Your task to perform on an android device: change the upload size in google photos Image 0: 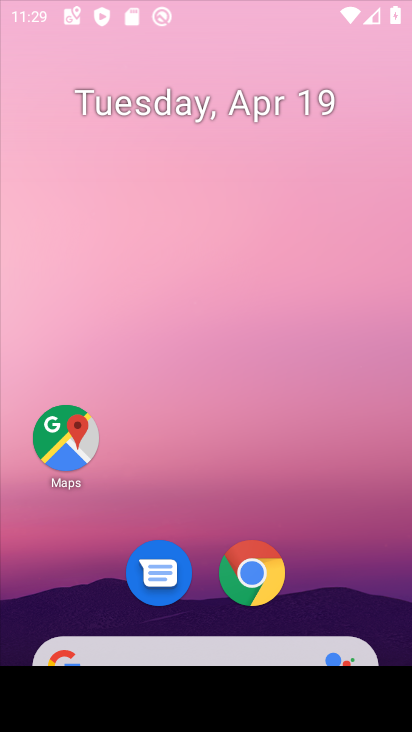
Step 0: click (51, 418)
Your task to perform on an android device: change the upload size in google photos Image 1: 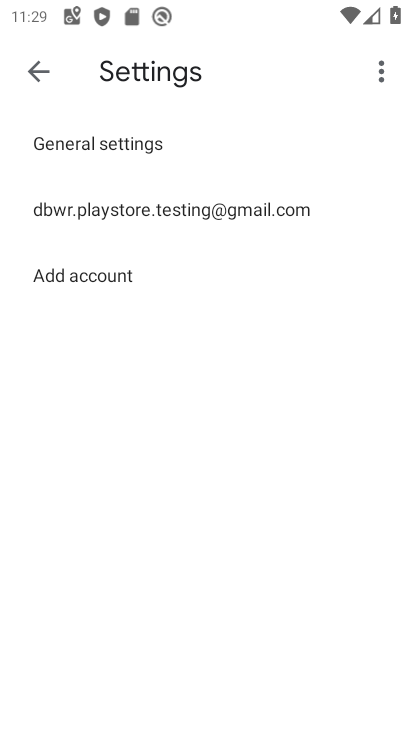
Step 1: press home button
Your task to perform on an android device: change the upload size in google photos Image 2: 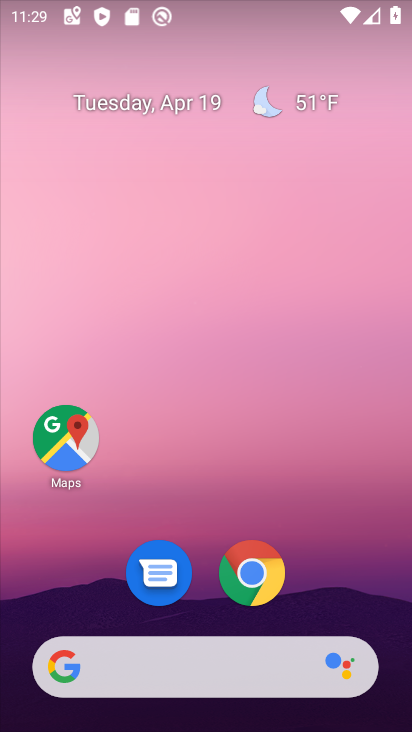
Step 2: drag from (210, 284) to (235, 145)
Your task to perform on an android device: change the upload size in google photos Image 3: 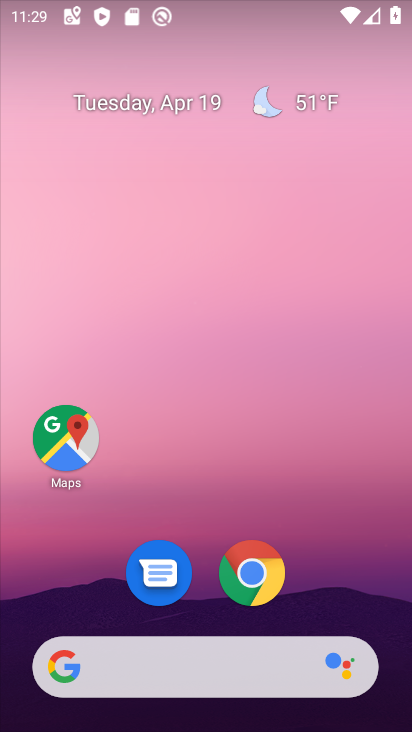
Step 3: drag from (352, 537) to (365, 116)
Your task to perform on an android device: change the upload size in google photos Image 4: 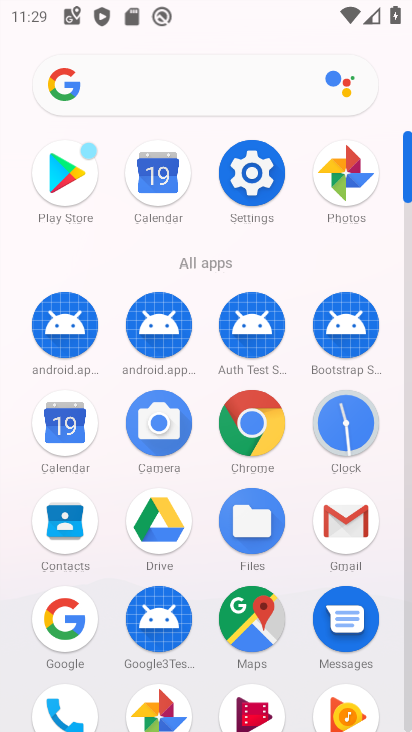
Step 4: click (355, 199)
Your task to perform on an android device: change the upload size in google photos Image 5: 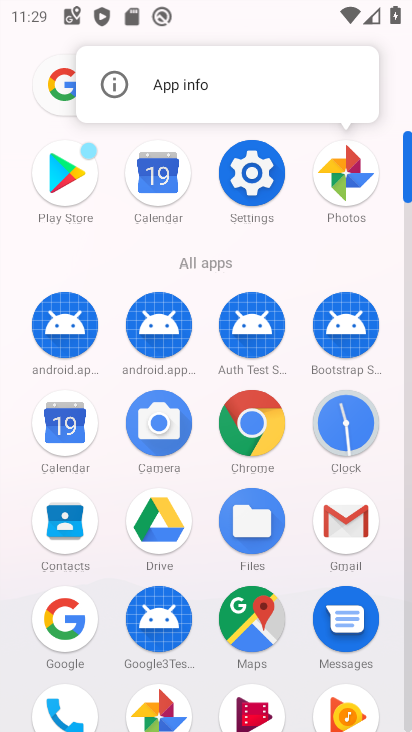
Step 5: click (359, 181)
Your task to perform on an android device: change the upload size in google photos Image 6: 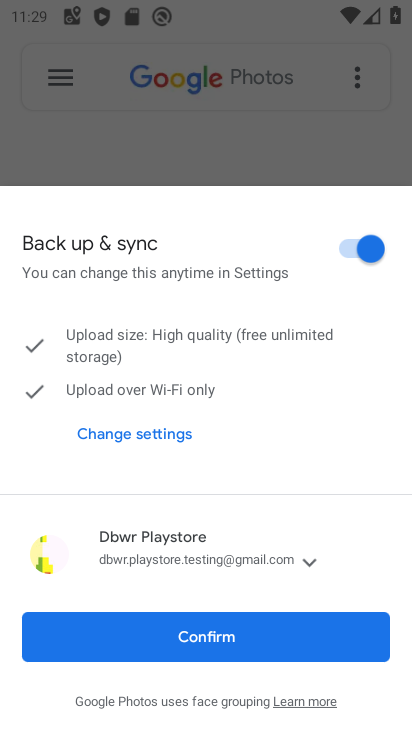
Step 6: click (173, 632)
Your task to perform on an android device: change the upload size in google photos Image 7: 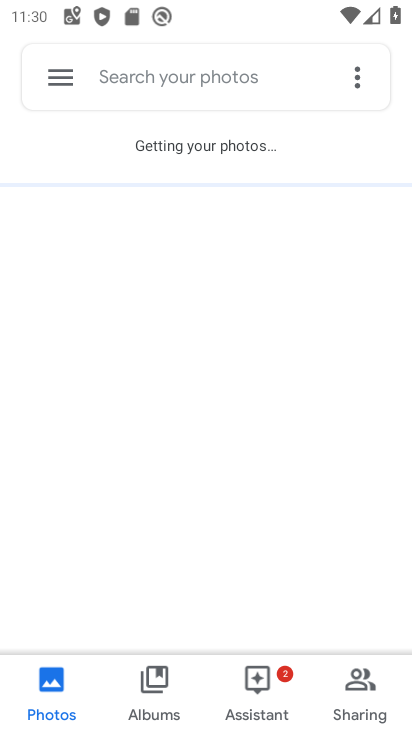
Step 7: click (64, 76)
Your task to perform on an android device: change the upload size in google photos Image 8: 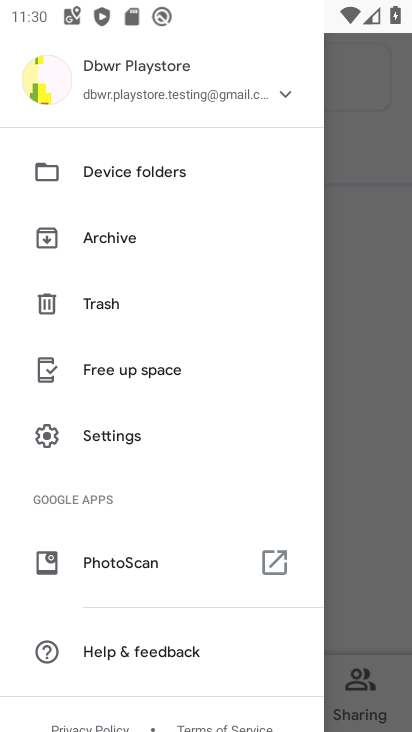
Step 8: click (126, 441)
Your task to perform on an android device: change the upload size in google photos Image 9: 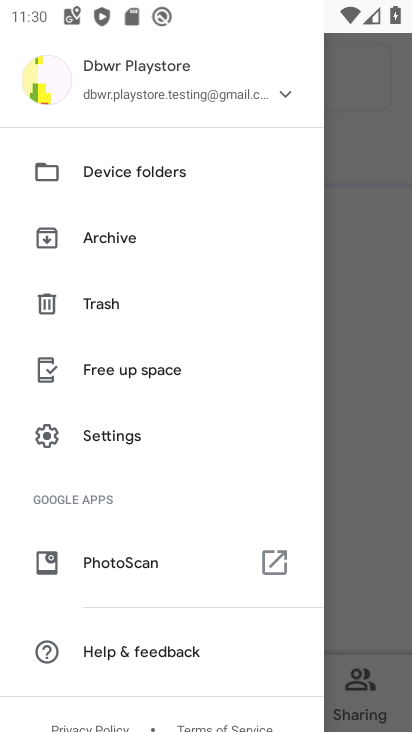
Step 9: click (125, 434)
Your task to perform on an android device: change the upload size in google photos Image 10: 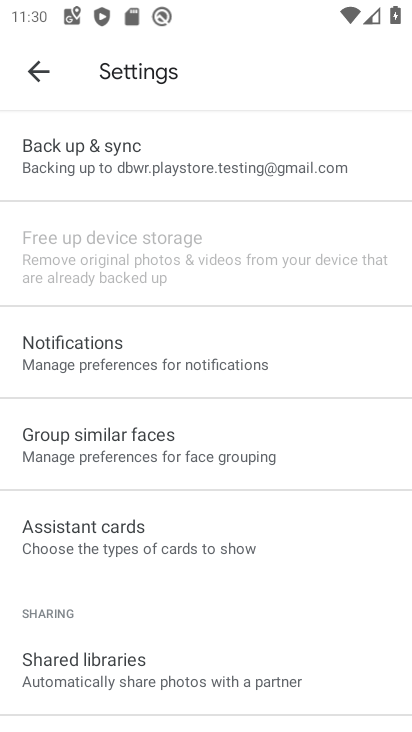
Step 10: drag from (202, 504) to (206, 300)
Your task to perform on an android device: change the upload size in google photos Image 11: 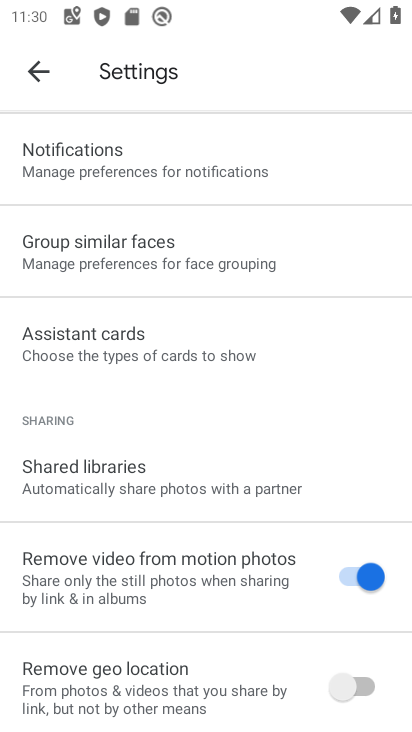
Step 11: drag from (195, 631) to (216, 300)
Your task to perform on an android device: change the upload size in google photos Image 12: 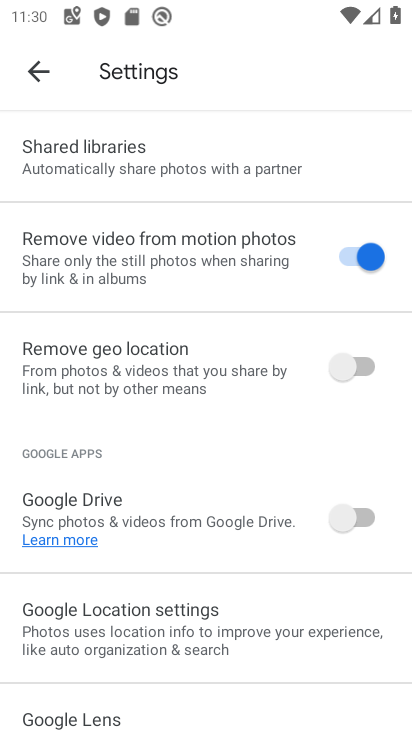
Step 12: drag from (204, 385) to (191, 654)
Your task to perform on an android device: change the upload size in google photos Image 13: 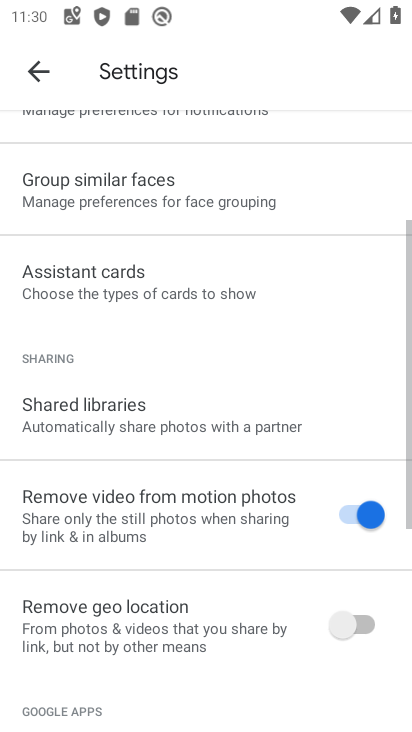
Step 13: drag from (156, 292) to (154, 660)
Your task to perform on an android device: change the upload size in google photos Image 14: 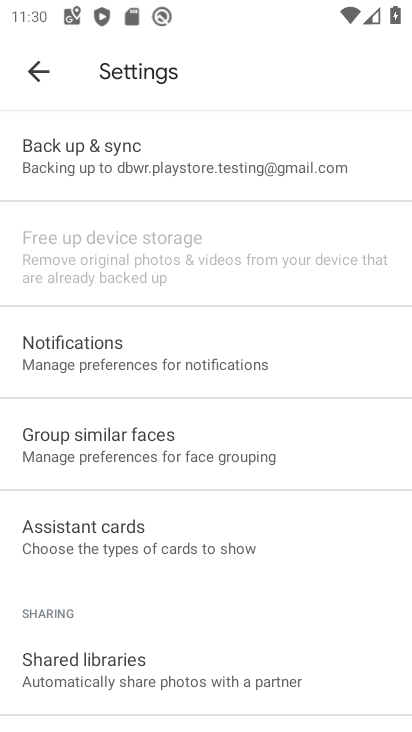
Step 14: click (145, 179)
Your task to perform on an android device: change the upload size in google photos Image 15: 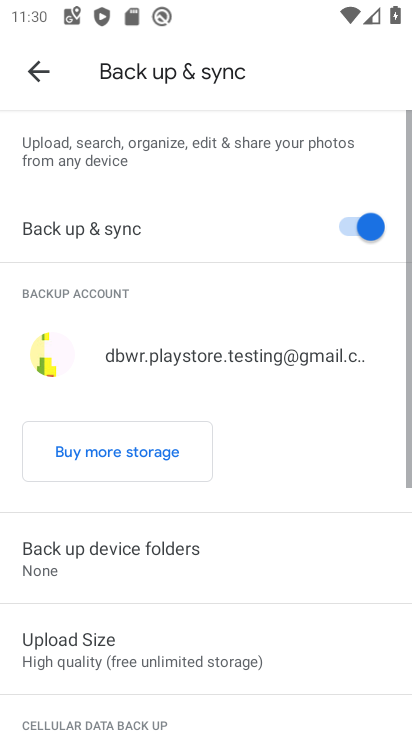
Step 15: click (136, 652)
Your task to perform on an android device: change the upload size in google photos Image 16: 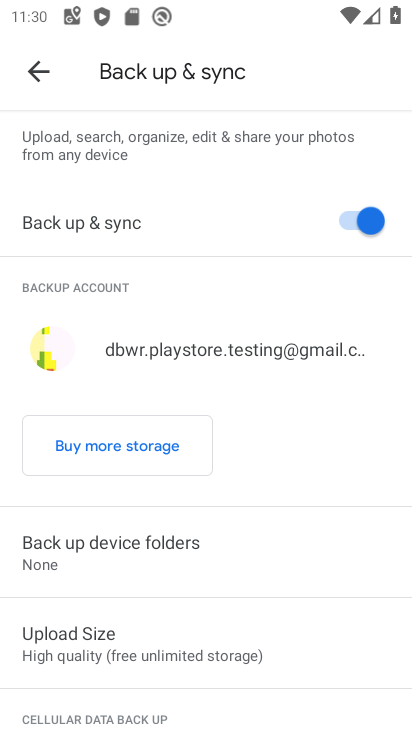
Step 16: click (140, 681)
Your task to perform on an android device: change the upload size in google photos Image 17: 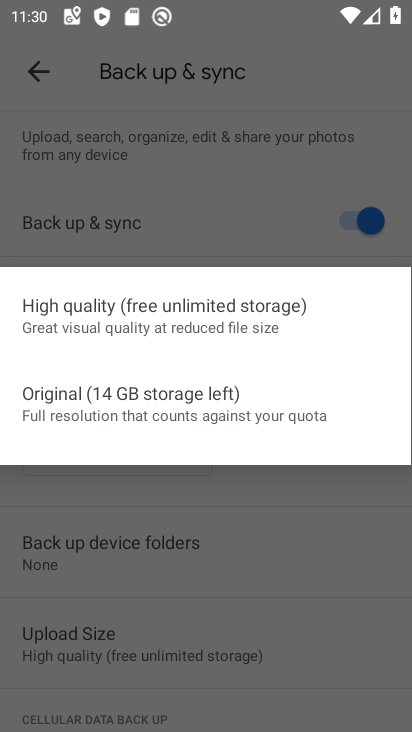
Step 17: click (126, 393)
Your task to perform on an android device: change the upload size in google photos Image 18: 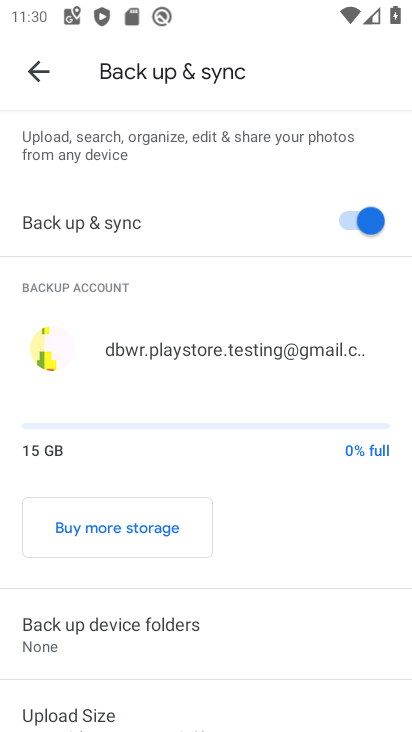
Step 18: task complete